Your task to perform on an android device: Go to wifi settings Image 0: 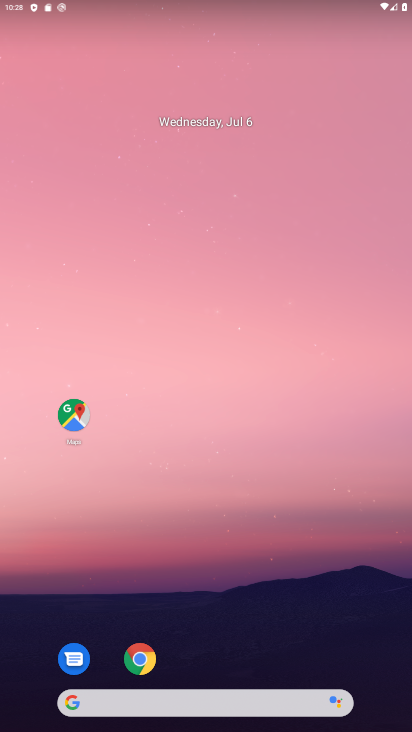
Step 0: drag from (40, 9) to (175, 528)
Your task to perform on an android device: Go to wifi settings Image 1: 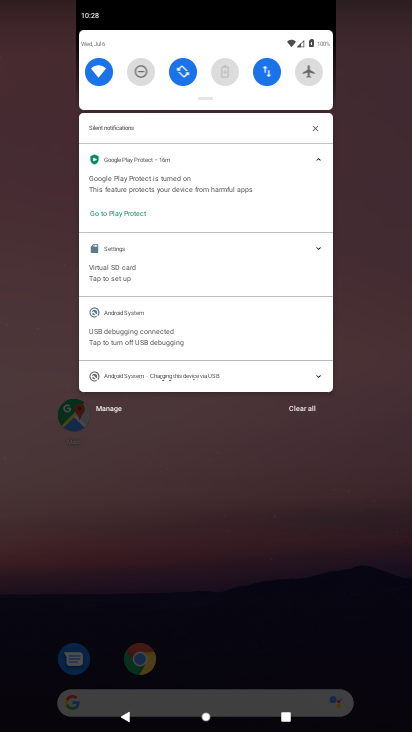
Step 1: click (97, 76)
Your task to perform on an android device: Go to wifi settings Image 2: 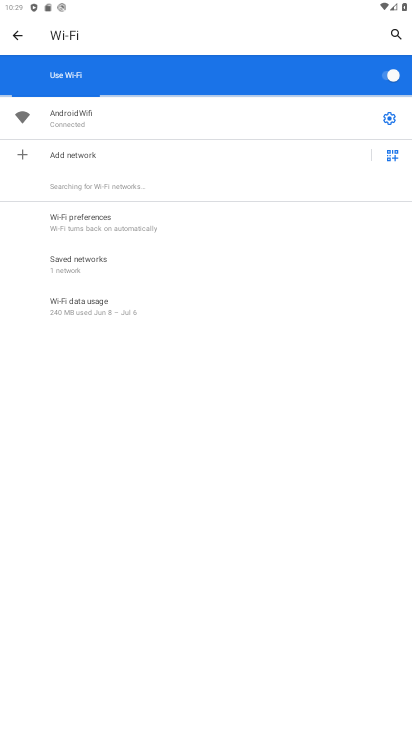
Step 2: task complete